Your task to perform on an android device: show emergency info Image 0: 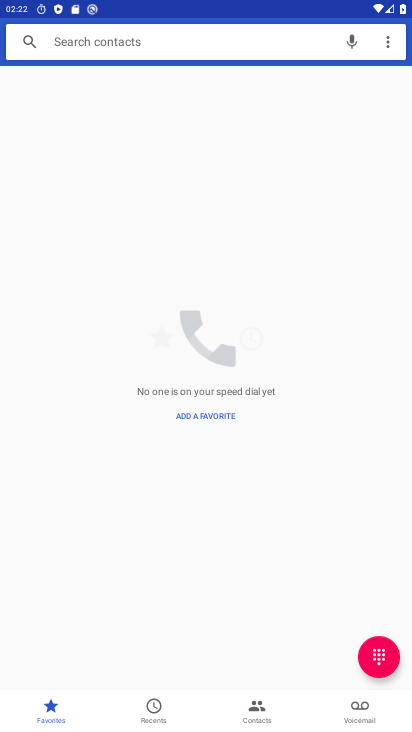
Step 0: press home button
Your task to perform on an android device: show emergency info Image 1: 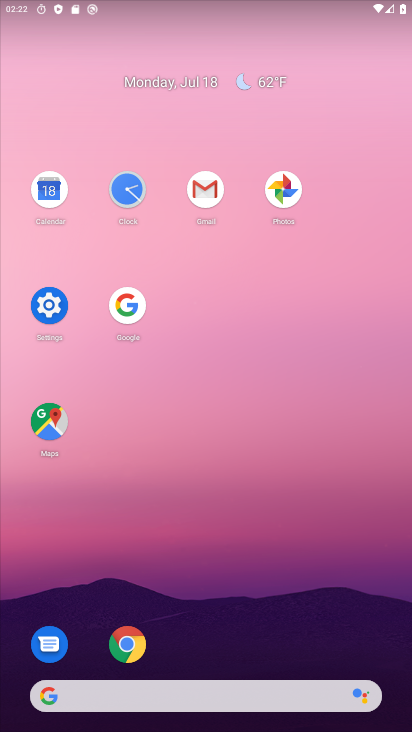
Step 1: click (58, 302)
Your task to perform on an android device: show emergency info Image 2: 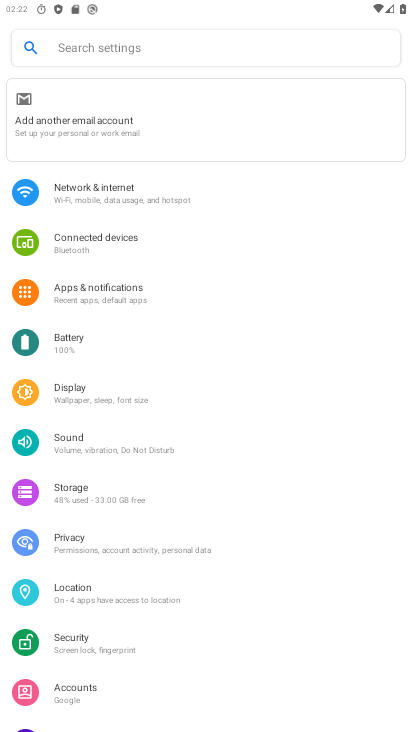
Step 2: drag from (185, 598) to (209, 201)
Your task to perform on an android device: show emergency info Image 3: 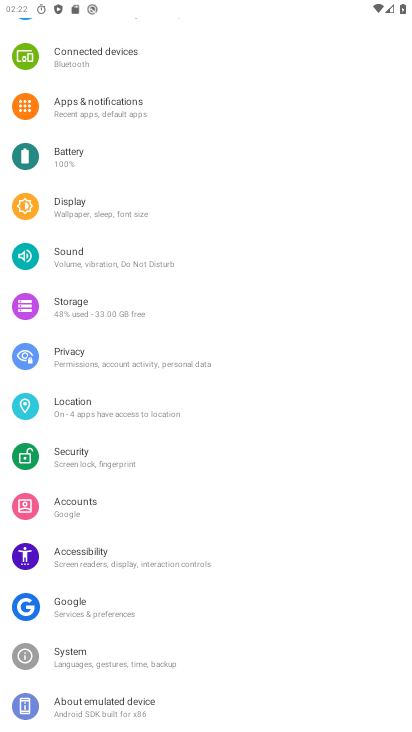
Step 3: click (100, 707)
Your task to perform on an android device: show emergency info Image 4: 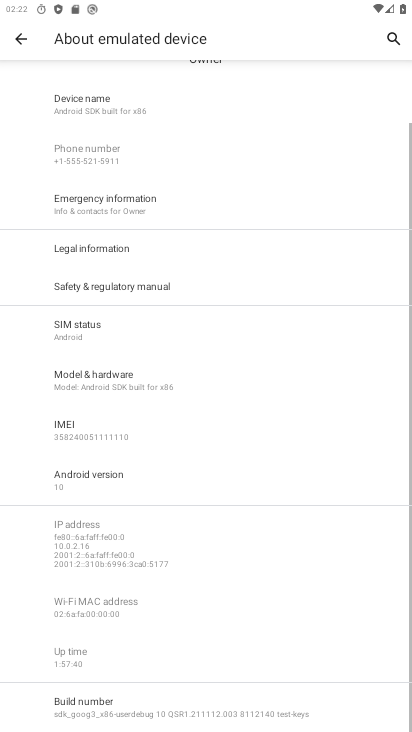
Step 4: click (209, 198)
Your task to perform on an android device: show emergency info Image 5: 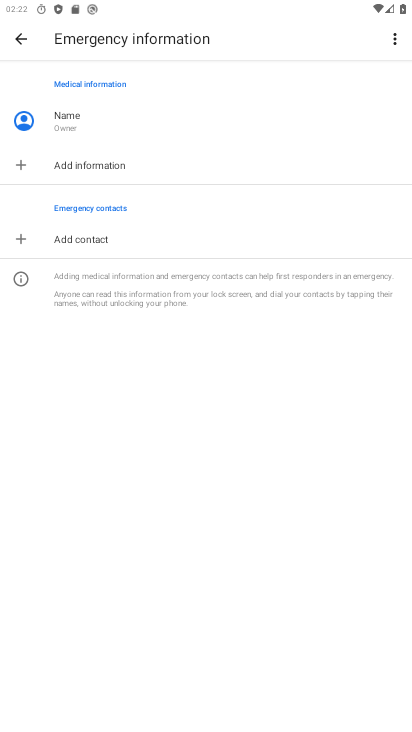
Step 5: task complete